Your task to perform on an android device: Open calendar and show me the first week of next month Image 0: 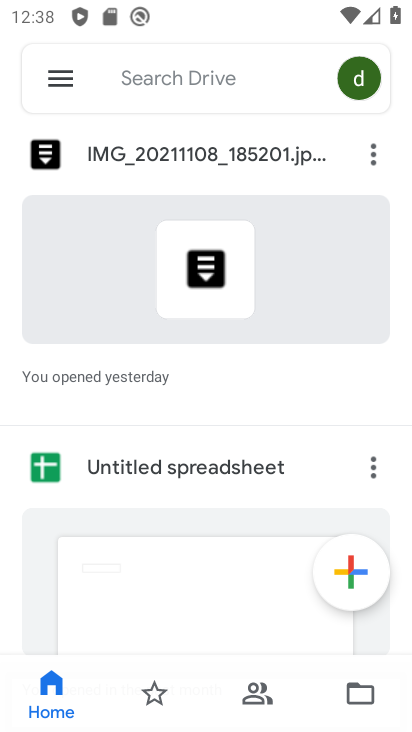
Step 0: press home button
Your task to perform on an android device: Open calendar and show me the first week of next month Image 1: 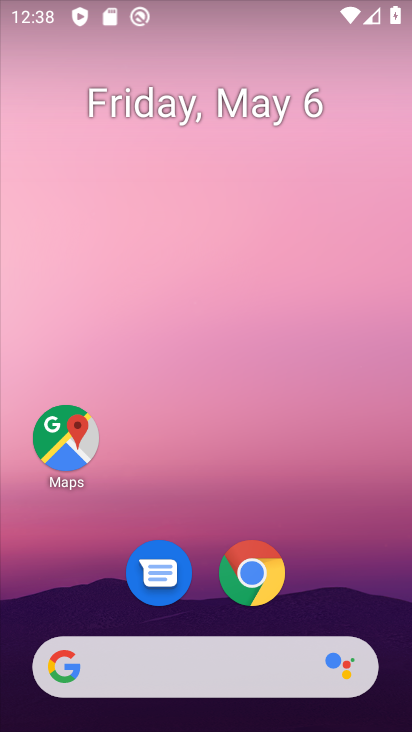
Step 1: drag from (171, 674) to (364, 179)
Your task to perform on an android device: Open calendar and show me the first week of next month Image 2: 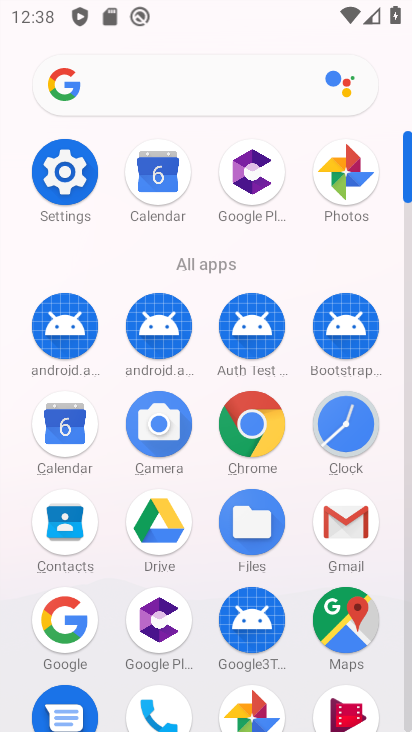
Step 2: click (68, 437)
Your task to perform on an android device: Open calendar and show me the first week of next month Image 3: 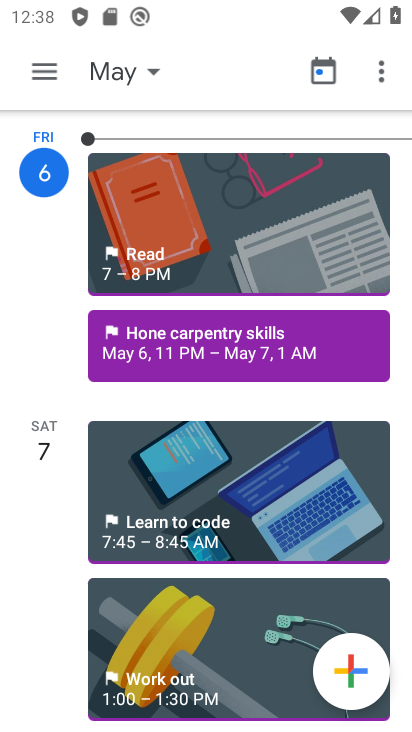
Step 3: click (125, 67)
Your task to perform on an android device: Open calendar and show me the first week of next month Image 4: 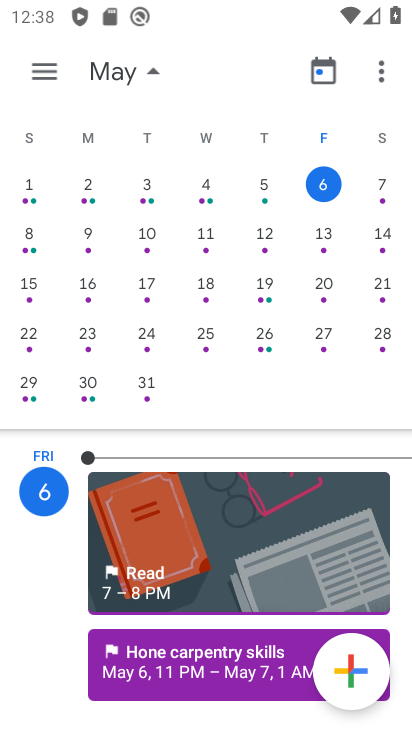
Step 4: drag from (349, 318) to (130, 171)
Your task to perform on an android device: Open calendar and show me the first week of next month Image 5: 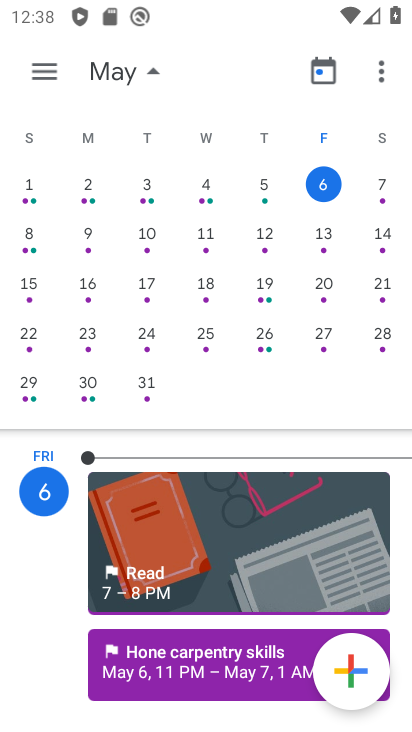
Step 5: drag from (377, 253) to (54, 198)
Your task to perform on an android device: Open calendar and show me the first week of next month Image 6: 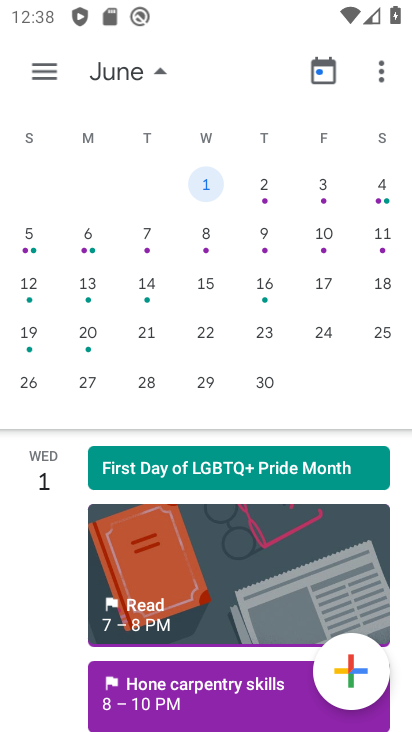
Step 6: click (44, 71)
Your task to perform on an android device: Open calendar and show me the first week of next month Image 7: 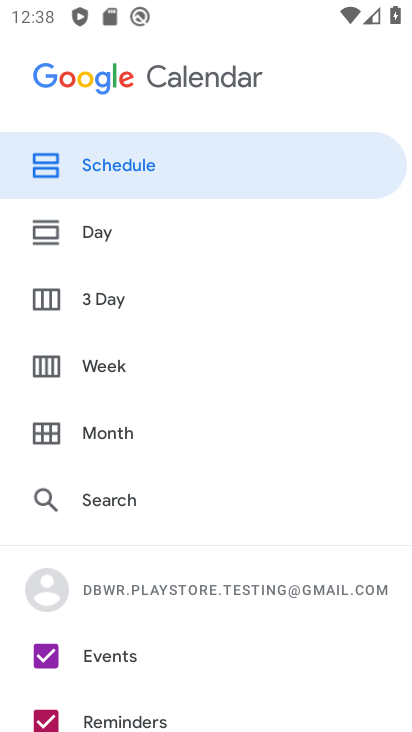
Step 7: click (112, 369)
Your task to perform on an android device: Open calendar and show me the first week of next month Image 8: 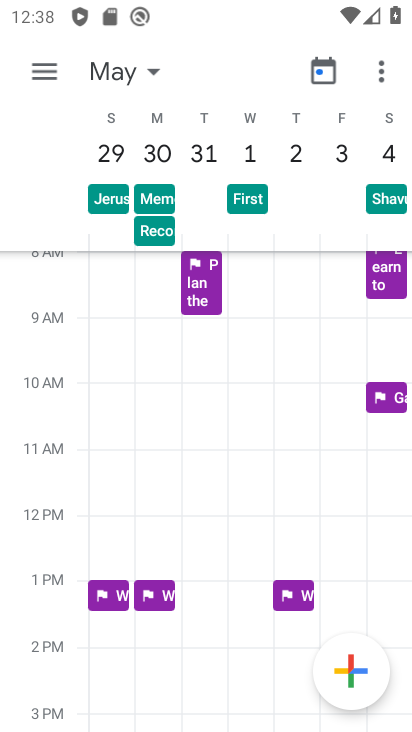
Step 8: task complete